Your task to perform on an android device: Open calendar and show me the fourth week of next month Image 0: 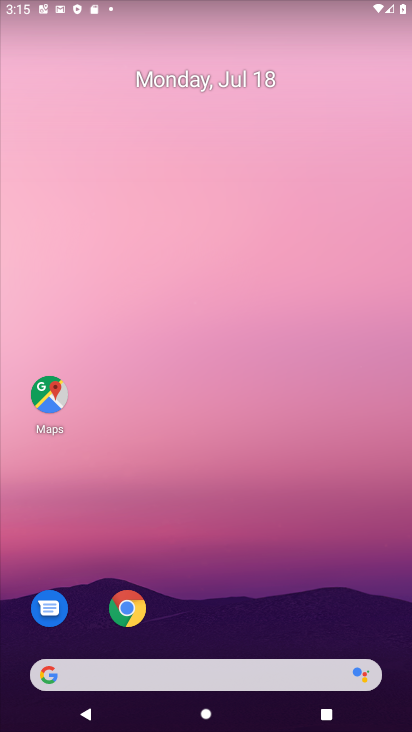
Step 0: drag from (286, 654) to (318, 88)
Your task to perform on an android device: Open calendar and show me the fourth week of next month Image 1: 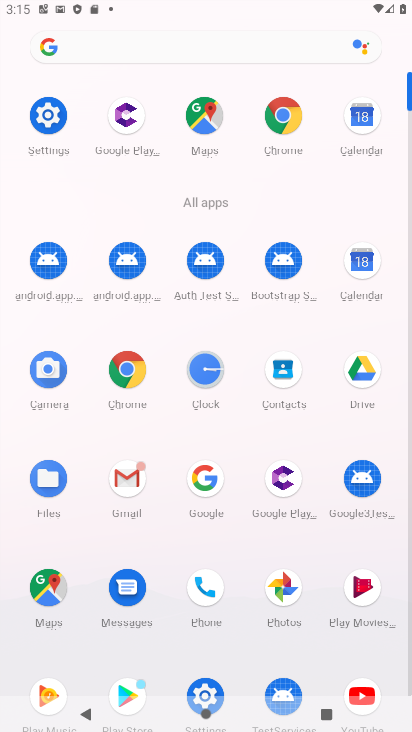
Step 1: click (357, 282)
Your task to perform on an android device: Open calendar and show me the fourth week of next month Image 2: 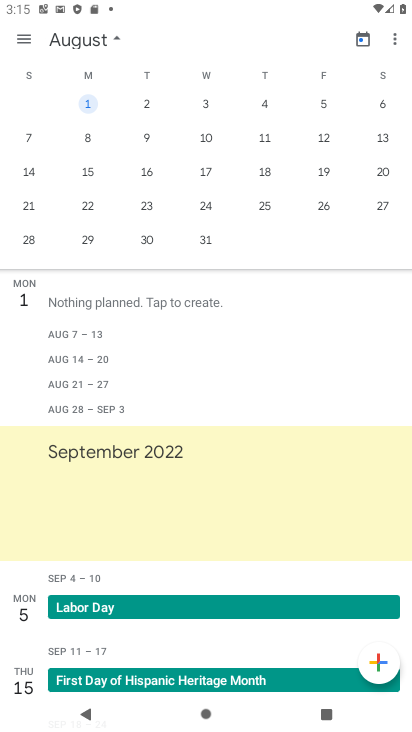
Step 2: task complete